Your task to perform on an android device: turn off improve location accuracy Image 0: 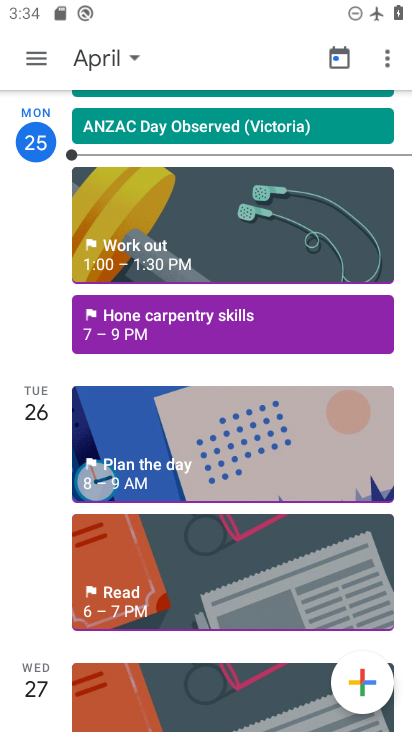
Step 0: press home button
Your task to perform on an android device: turn off improve location accuracy Image 1: 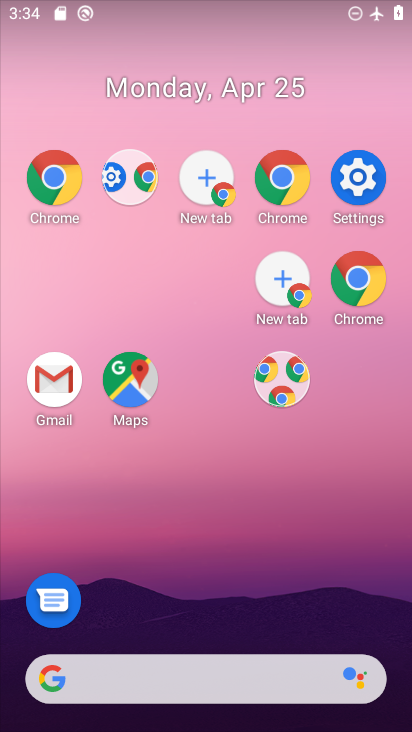
Step 1: drag from (331, 588) to (132, 13)
Your task to perform on an android device: turn off improve location accuracy Image 2: 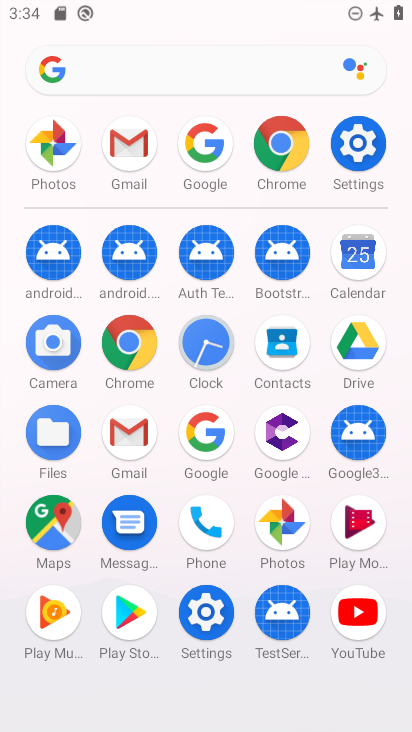
Step 2: click (351, 155)
Your task to perform on an android device: turn off improve location accuracy Image 3: 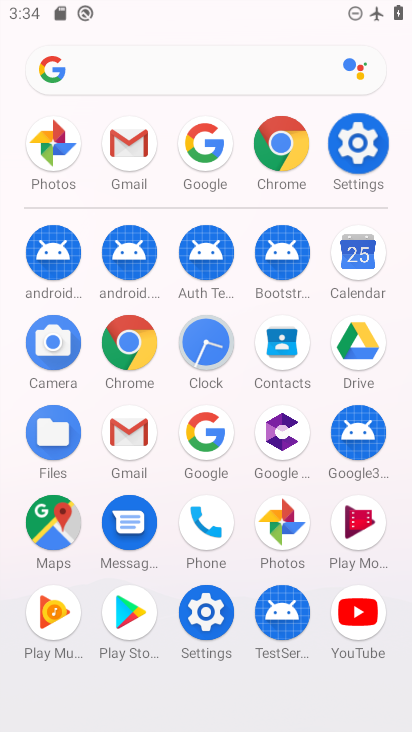
Step 3: click (350, 148)
Your task to perform on an android device: turn off improve location accuracy Image 4: 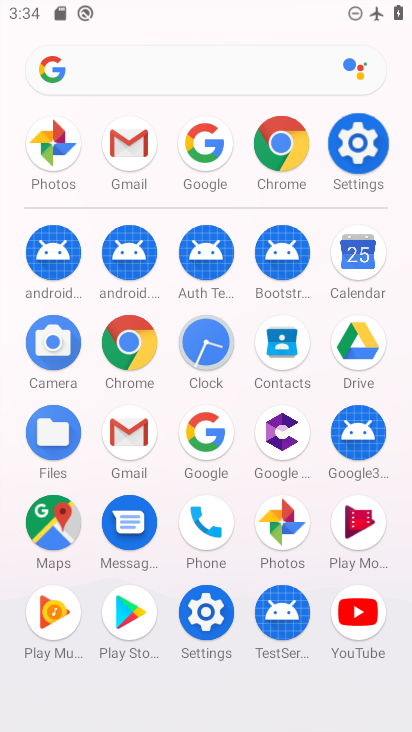
Step 4: click (346, 140)
Your task to perform on an android device: turn off improve location accuracy Image 5: 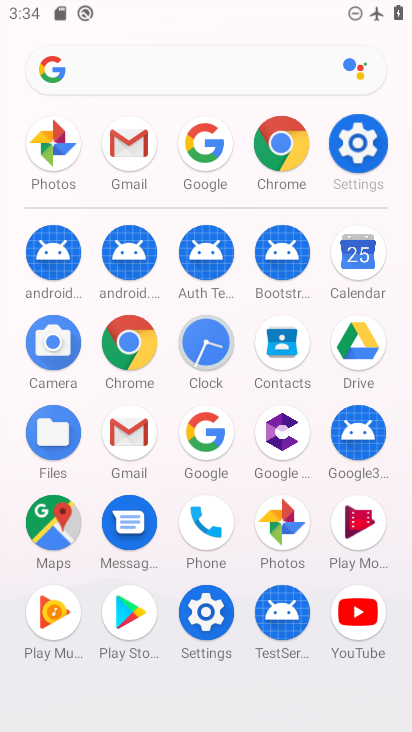
Step 5: click (347, 142)
Your task to perform on an android device: turn off improve location accuracy Image 6: 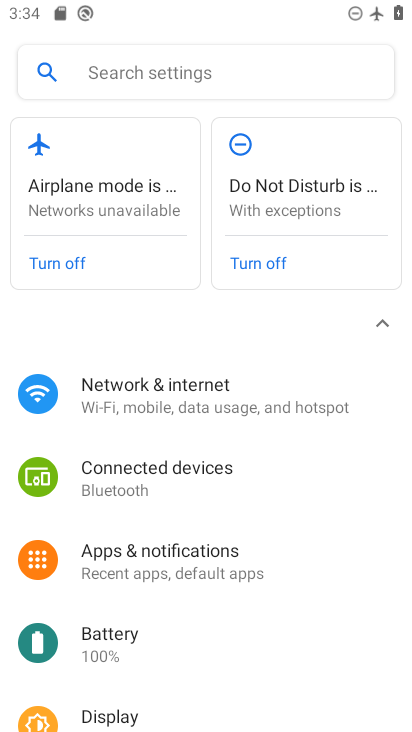
Step 6: drag from (150, 609) to (115, 306)
Your task to perform on an android device: turn off improve location accuracy Image 7: 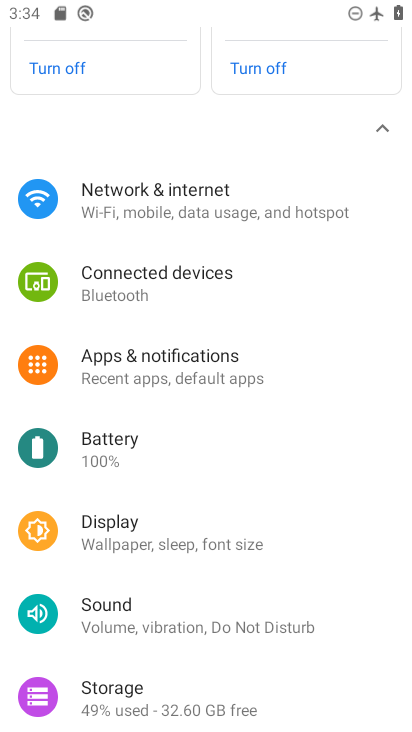
Step 7: drag from (151, 602) to (72, 111)
Your task to perform on an android device: turn off improve location accuracy Image 8: 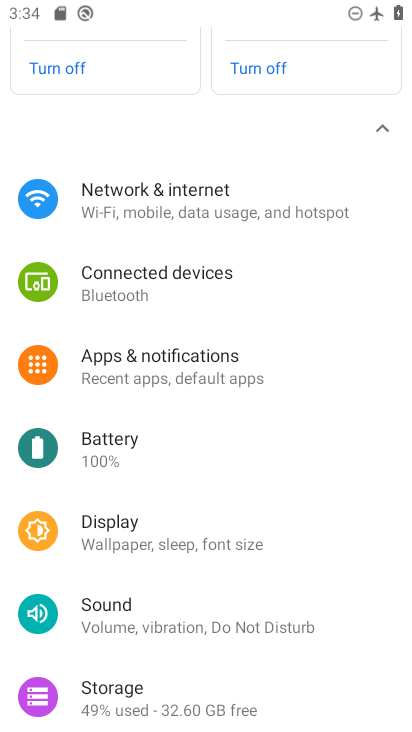
Step 8: drag from (146, 502) to (91, 84)
Your task to perform on an android device: turn off improve location accuracy Image 9: 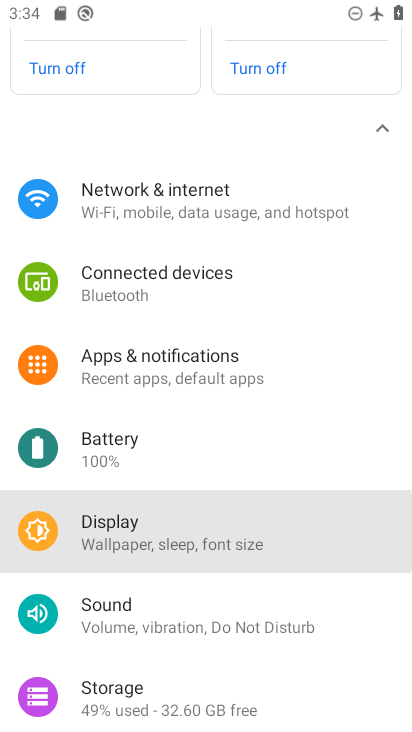
Step 9: drag from (171, 517) to (190, 24)
Your task to perform on an android device: turn off improve location accuracy Image 10: 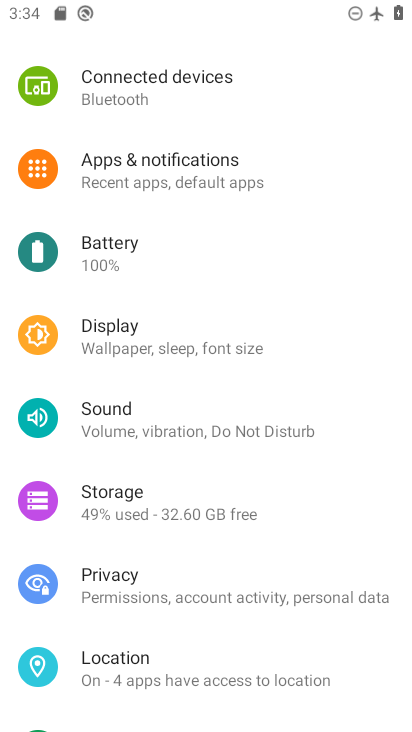
Step 10: drag from (163, 450) to (116, 0)
Your task to perform on an android device: turn off improve location accuracy Image 11: 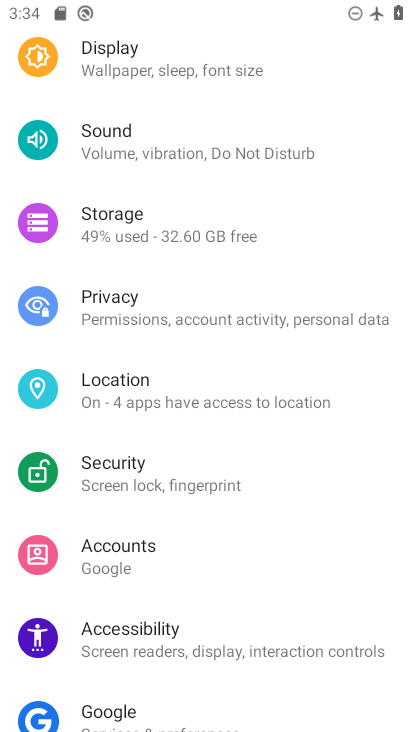
Step 11: click (124, 661)
Your task to perform on an android device: turn off improve location accuracy Image 12: 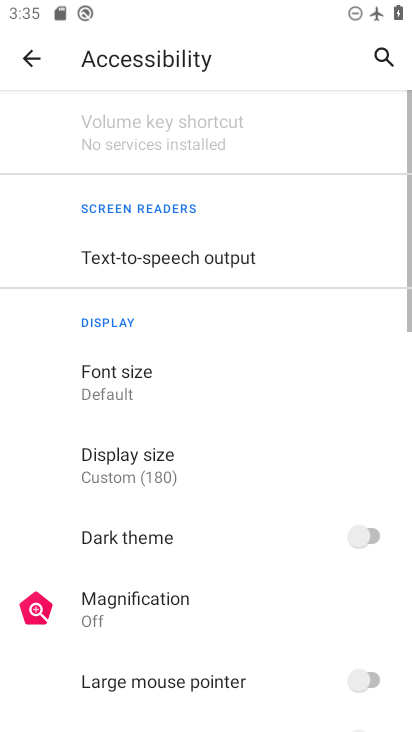
Step 12: click (131, 388)
Your task to perform on an android device: turn off improve location accuracy Image 13: 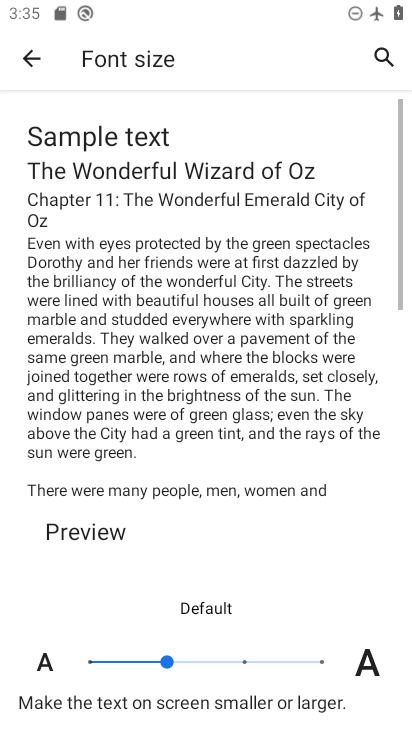
Step 13: click (22, 57)
Your task to perform on an android device: turn off improve location accuracy Image 14: 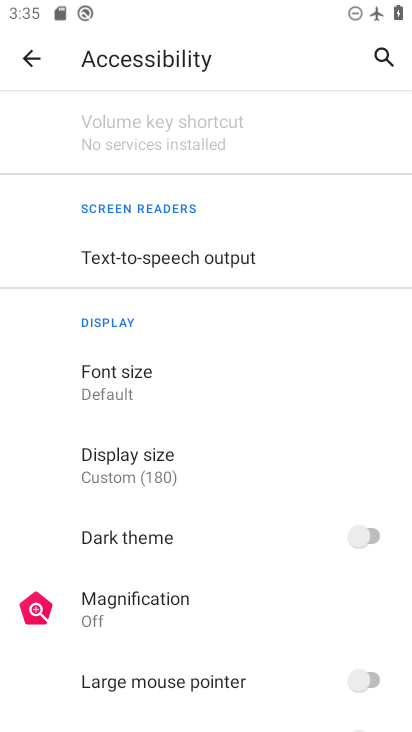
Step 14: click (28, 58)
Your task to perform on an android device: turn off improve location accuracy Image 15: 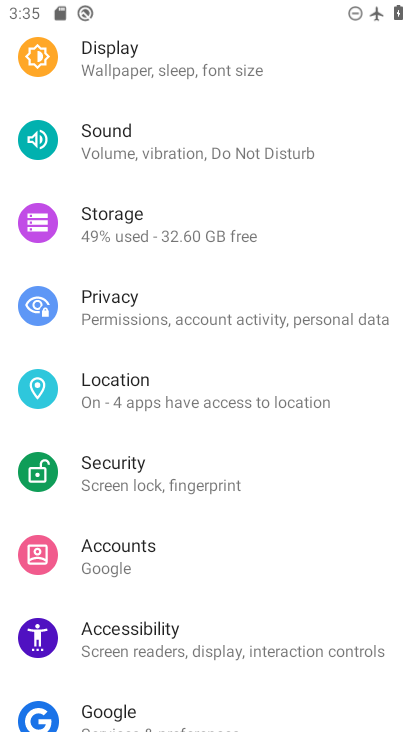
Step 15: click (124, 387)
Your task to perform on an android device: turn off improve location accuracy Image 16: 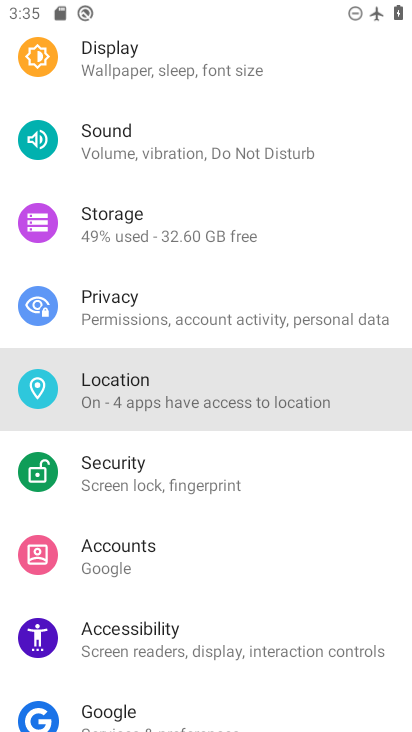
Step 16: click (124, 387)
Your task to perform on an android device: turn off improve location accuracy Image 17: 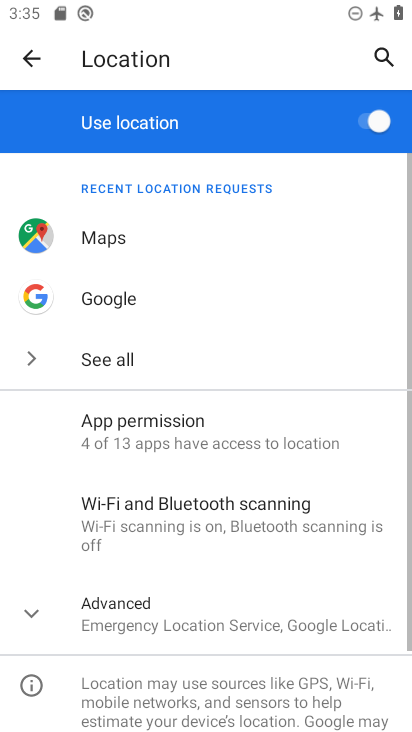
Step 17: click (365, 118)
Your task to perform on an android device: turn off improve location accuracy Image 18: 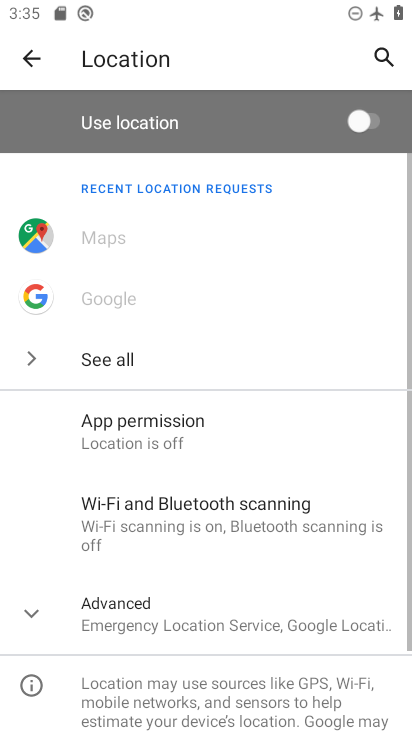
Step 18: task complete